Your task to perform on an android device: Do I have any events this weekend? Image 0: 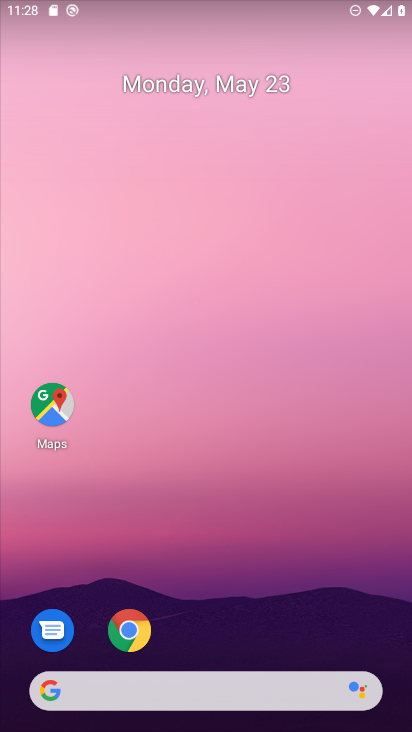
Step 0: drag from (214, 330) to (253, 172)
Your task to perform on an android device: Do I have any events this weekend? Image 1: 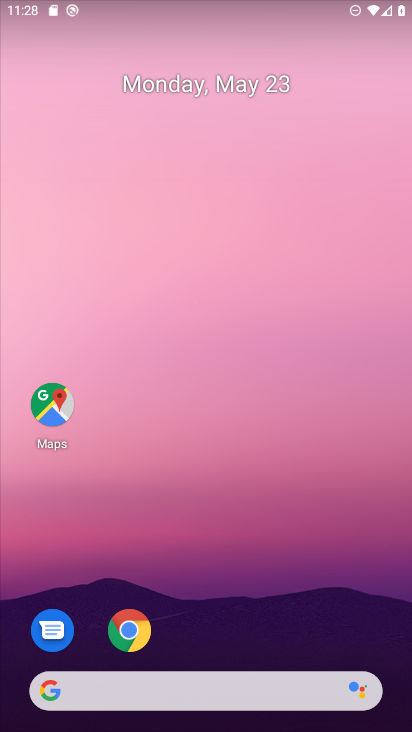
Step 1: drag from (202, 651) to (225, 287)
Your task to perform on an android device: Do I have any events this weekend? Image 2: 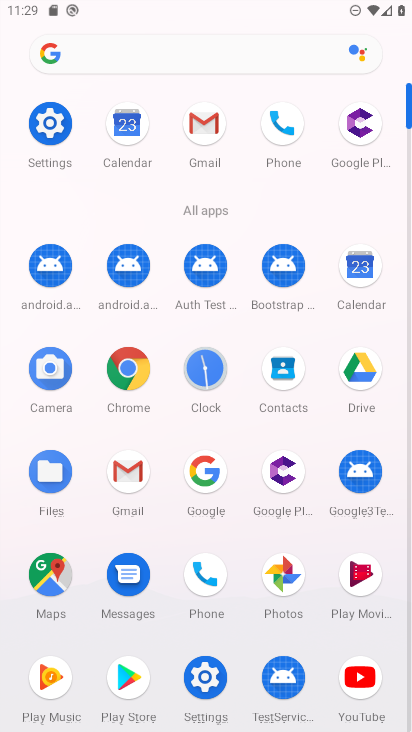
Step 2: click (360, 273)
Your task to perform on an android device: Do I have any events this weekend? Image 3: 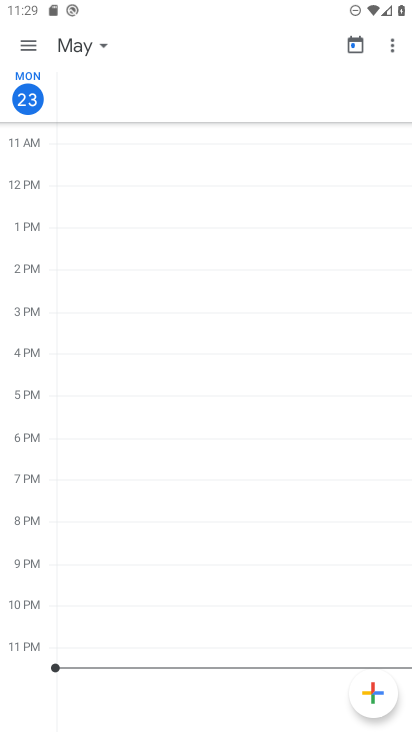
Step 3: click (78, 49)
Your task to perform on an android device: Do I have any events this weekend? Image 4: 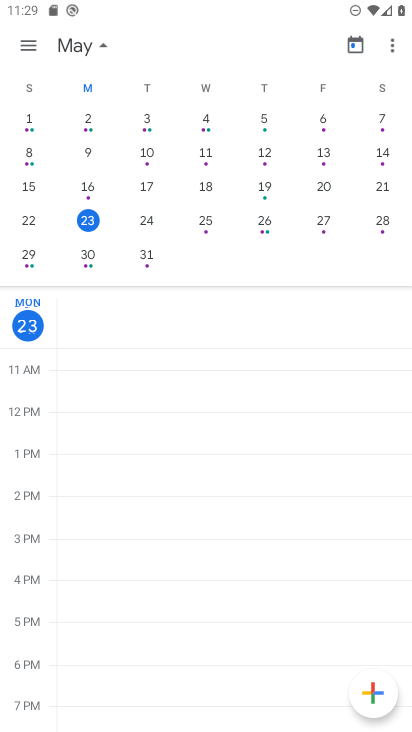
Step 4: click (390, 227)
Your task to perform on an android device: Do I have any events this weekend? Image 5: 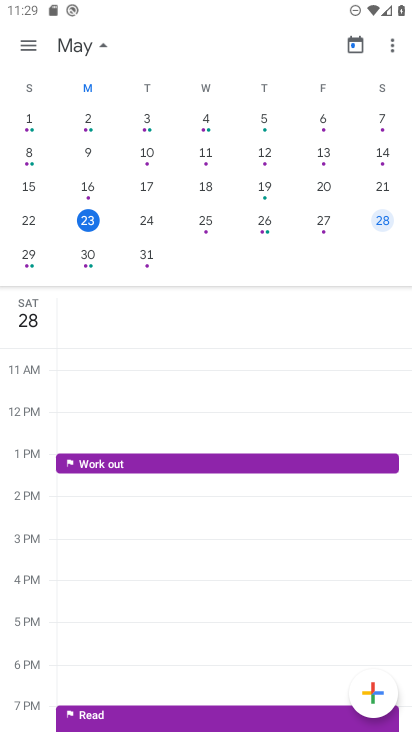
Step 5: click (16, 265)
Your task to perform on an android device: Do I have any events this weekend? Image 6: 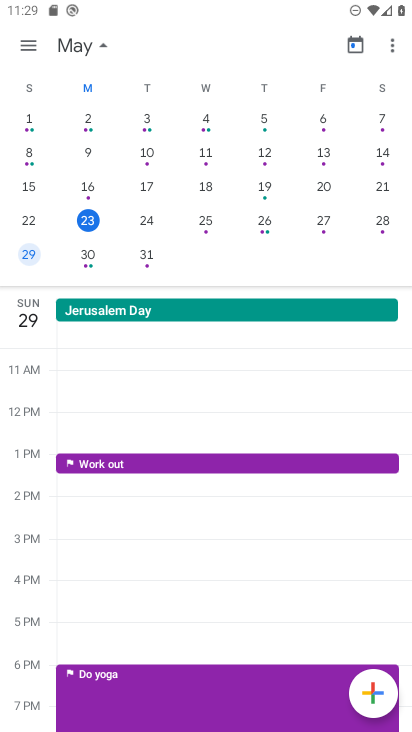
Step 6: task complete